Your task to perform on an android device: Show me popular games on the Play Store Image 0: 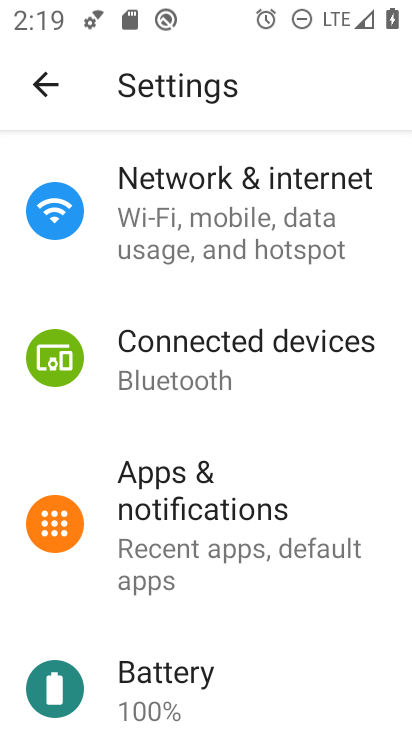
Step 0: press home button
Your task to perform on an android device: Show me popular games on the Play Store Image 1: 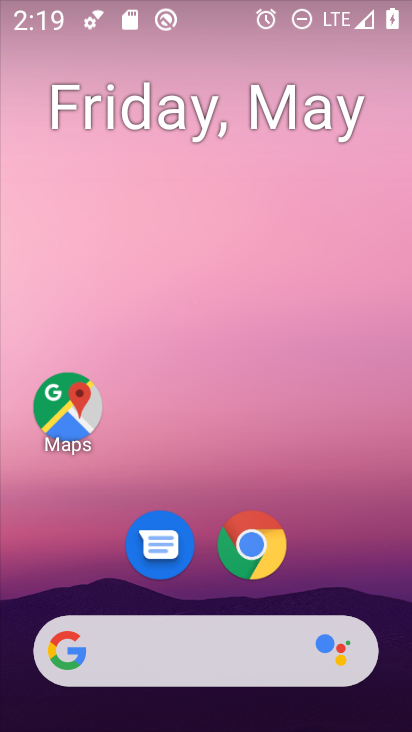
Step 1: drag from (310, 608) to (297, 249)
Your task to perform on an android device: Show me popular games on the Play Store Image 2: 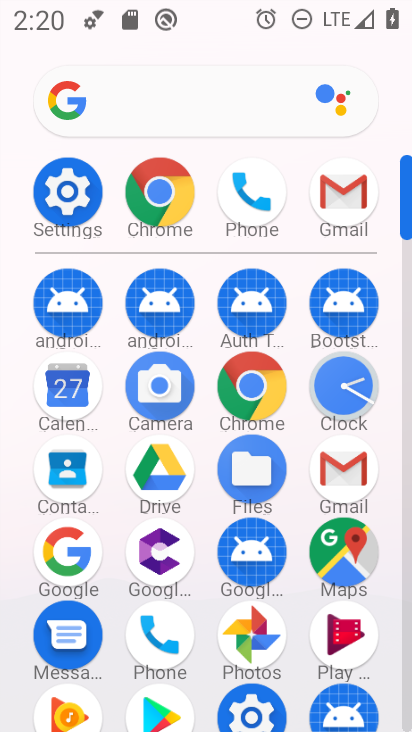
Step 2: drag from (179, 579) to (175, 409)
Your task to perform on an android device: Show me popular games on the Play Store Image 3: 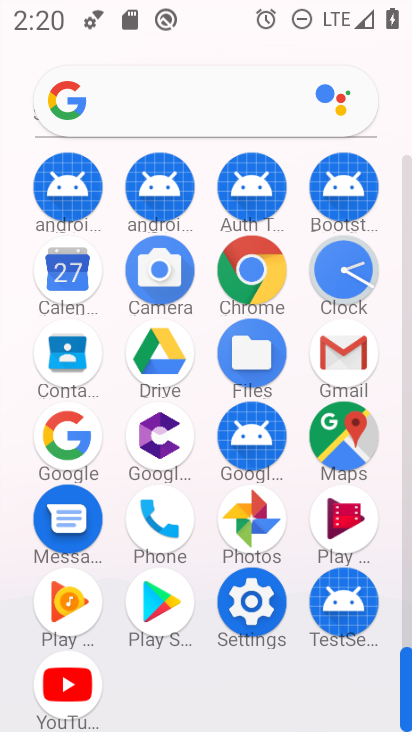
Step 3: click (155, 595)
Your task to perform on an android device: Show me popular games on the Play Store Image 4: 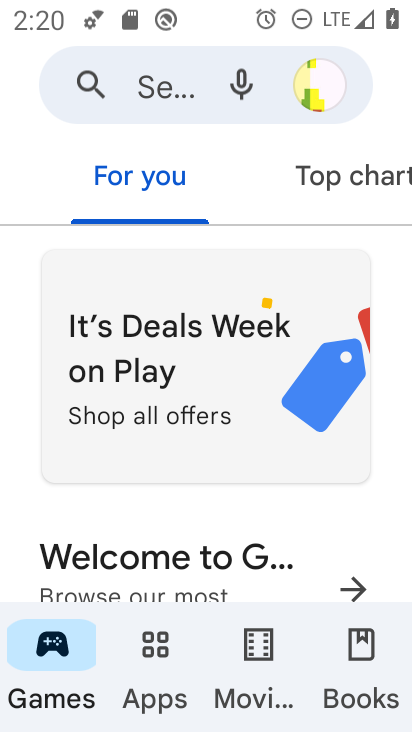
Step 4: task complete